Your task to perform on an android device: Open Youtube and go to the subscriptions tab Image 0: 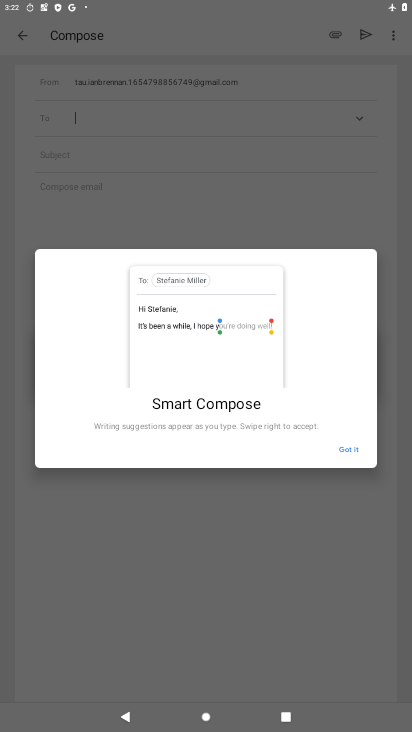
Step 0: press home button
Your task to perform on an android device: Open Youtube and go to the subscriptions tab Image 1: 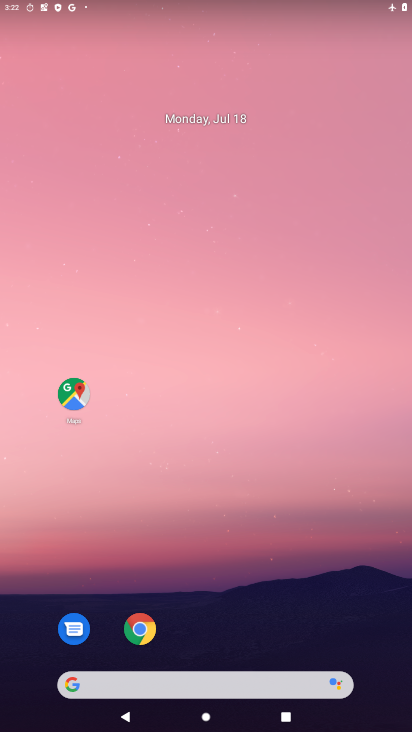
Step 1: drag from (218, 669) to (122, 19)
Your task to perform on an android device: Open Youtube and go to the subscriptions tab Image 2: 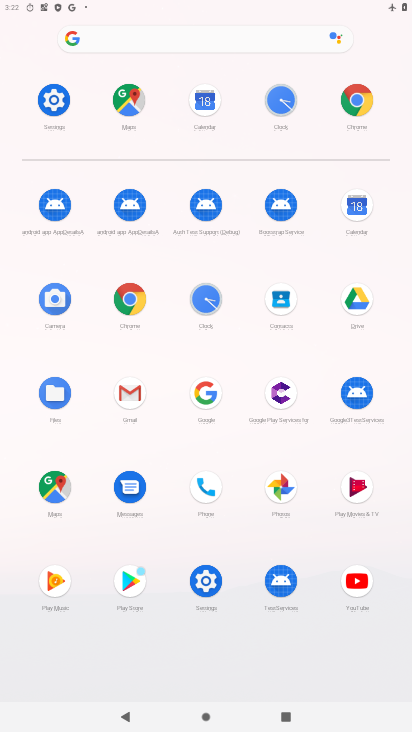
Step 2: click (340, 580)
Your task to perform on an android device: Open Youtube and go to the subscriptions tab Image 3: 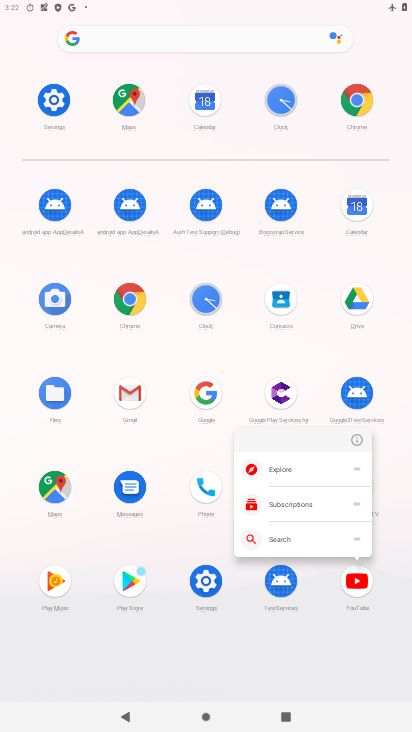
Step 3: click (352, 584)
Your task to perform on an android device: Open Youtube and go to the subscriptions tab Image 4: 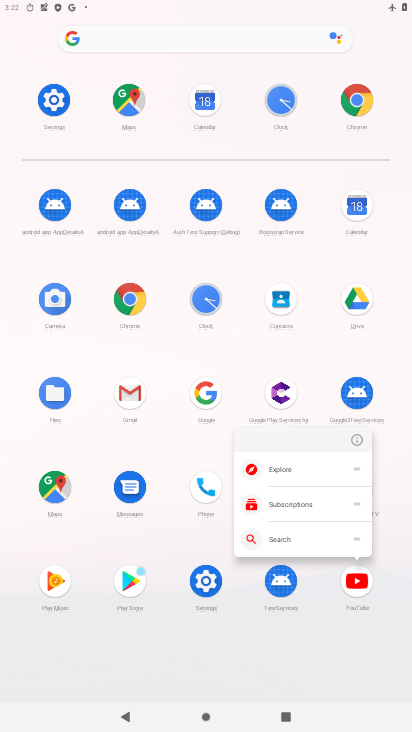
Step 4: click (373, 582)
Your task to perform on an android device: Open Youtube and go to the subscriptions tab Image 5: 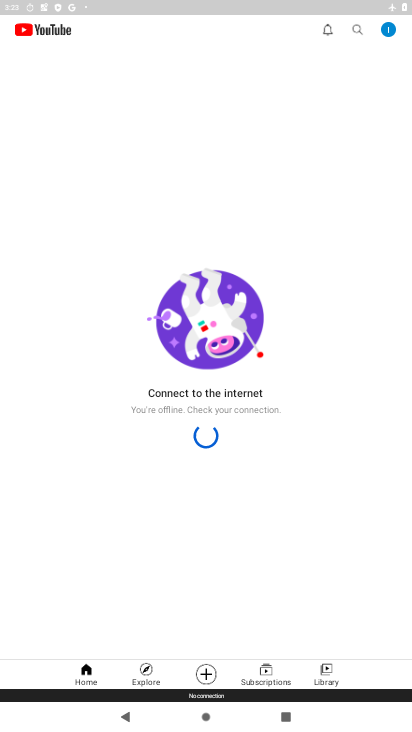
Step 5: click (257, 675)
Your task to perform on an android device: Open Youtube and go to the subscriptions tab Image 6: 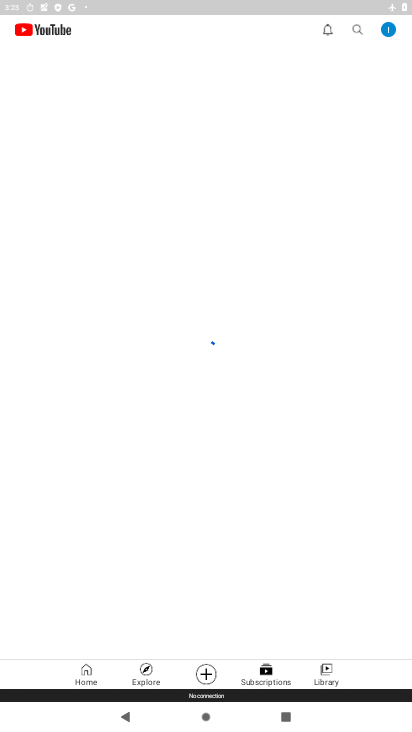
Step 6: task complete